Your task to perform on an android device: Open Reddit.com Image 0: 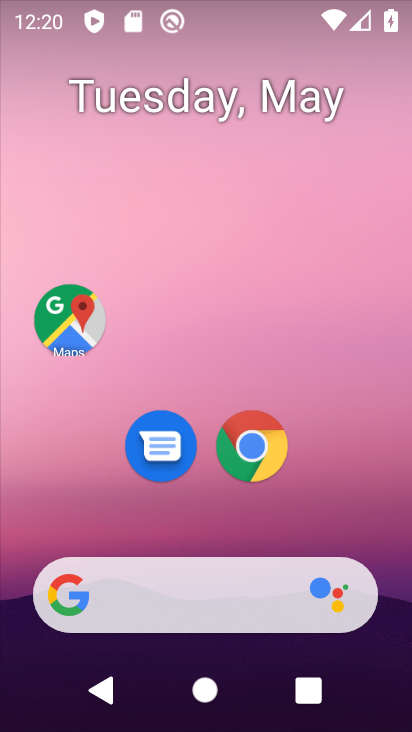
Step 0: drag from (211, 569) to (229, 141)
Your task to perform on an android device: Open Reddit.com Image 1: 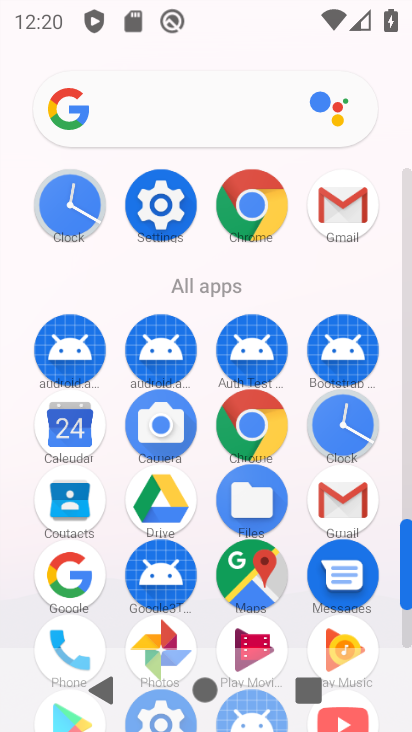
Step 1: click (257, 224)
Your task to perform on an android device: Open Reddit.com Image 2: 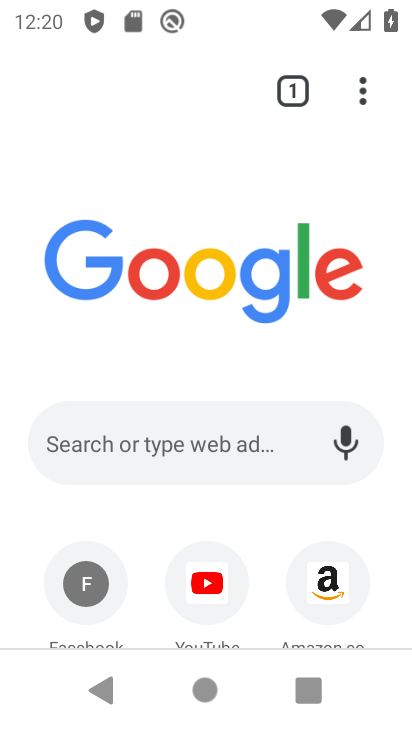
Step 2: click (146, 442)
Your task to perform on an android device: Open Reddit.com Image 3: 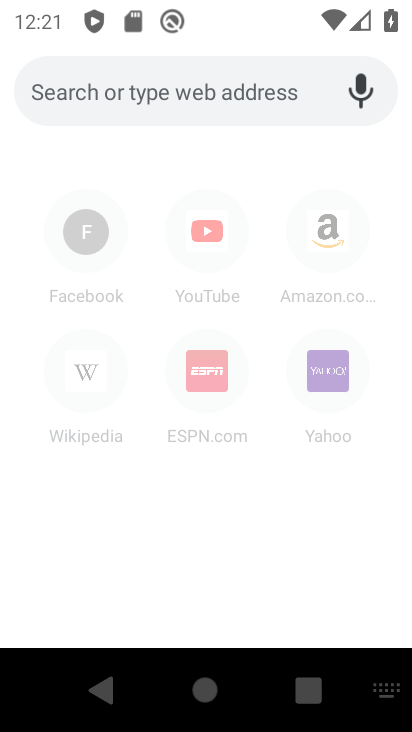
Step 3: type "reddit"
Your task to perform on an android device: Open Reddit.com Image 4: 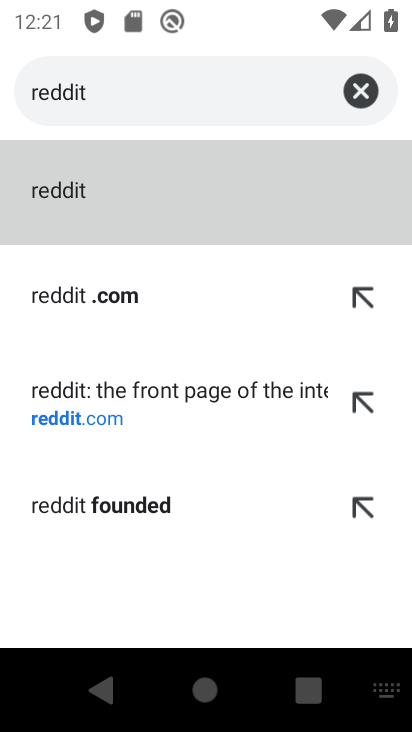
Step 4: click (127, 426)
Your task to perform on an android device: Open Reddit.com Image 5: 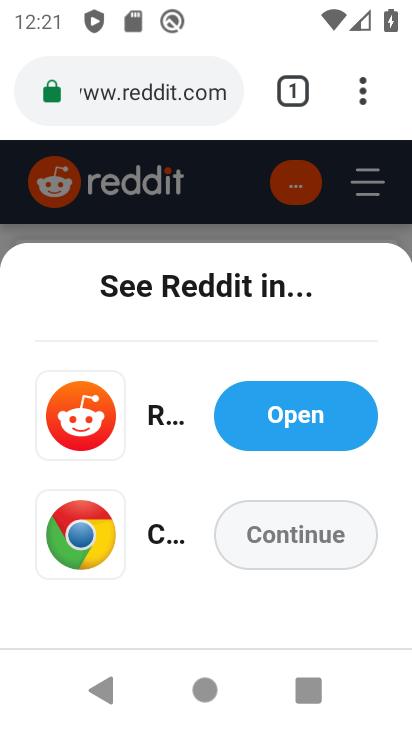
Step 5: click (312, 535)
Your task to perform on an android device: Open Reddit.com Image 6: 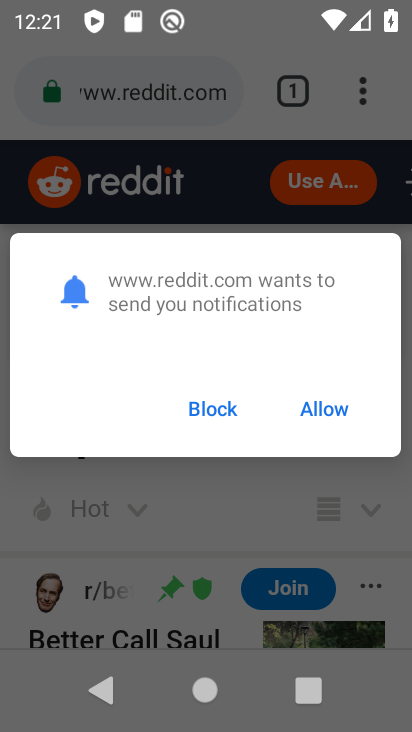
Step 6: task complete